Your task to perform on an android device: see sites visited before in the chrome app Image 0: 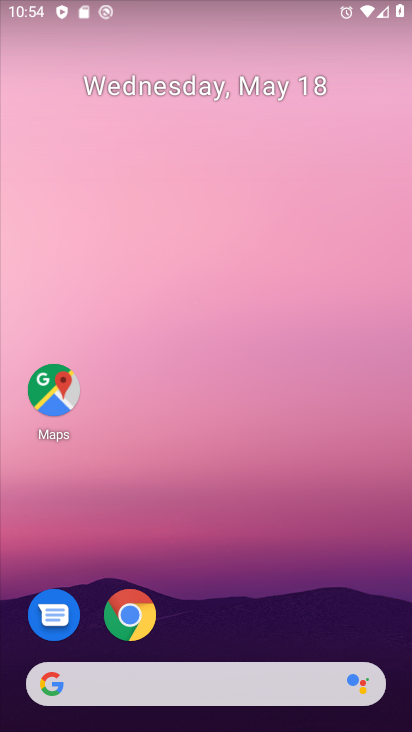
Step 0: drag from (220, 600) to (220, 222)
Your task to perform on an android device: see sites visited before in the chrome app Image 1: 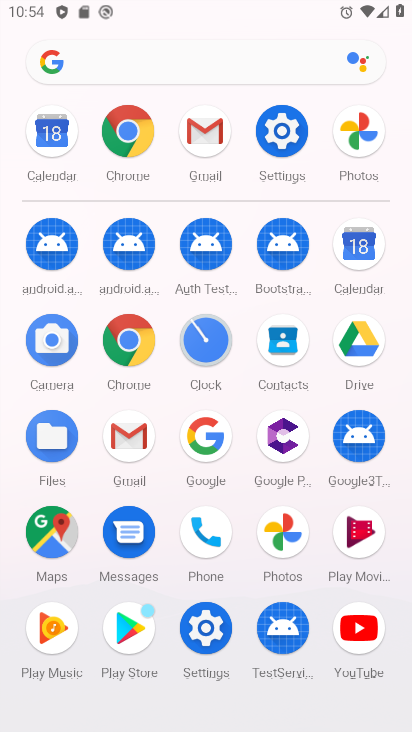
Step 1: click (115, 138)
Your task to perform on an android device: see sites visited before in the chrome app Image 2: 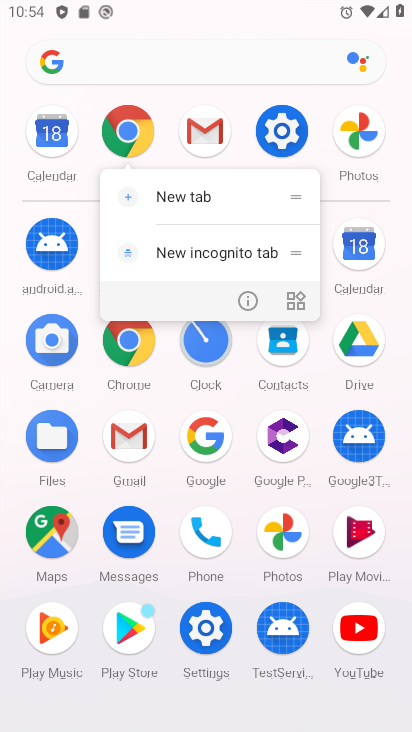
Step 2: click (133, 131)
Your task to perform on an android device: see sites visited before in the chrome app Image 3: 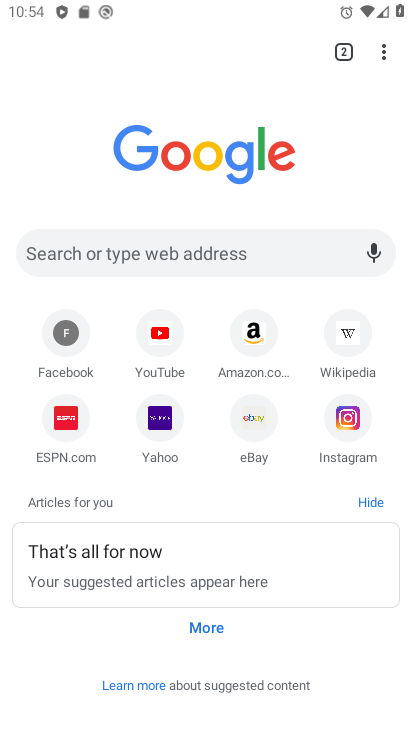
Step 3: click (343, 52)
Your task to perform on an android device: see sites visited before in the chrome app Image 4: 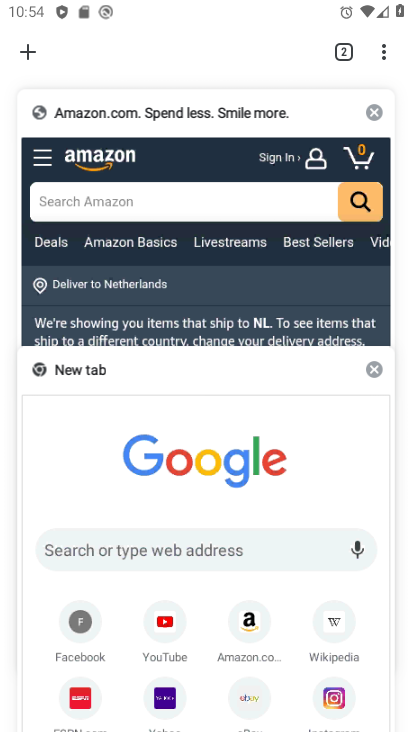
Step 4: task complete